Your task to perform on an android device: turn pop-ups on in chrome Image 0: 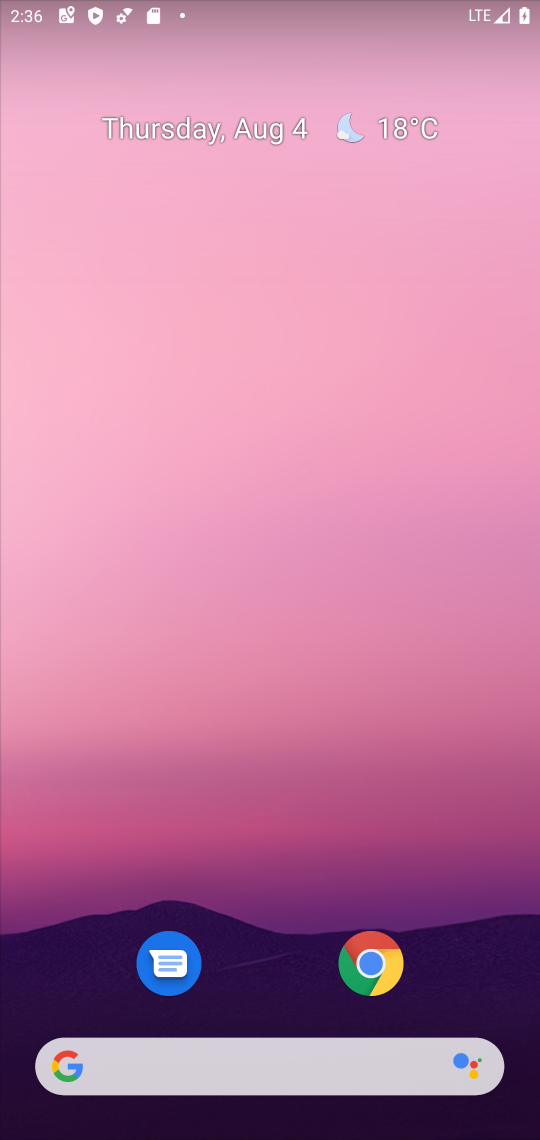
Step 0: click (376, 969)
Your task to perform on an android device: turn pop-ups on in chrome Image 1: 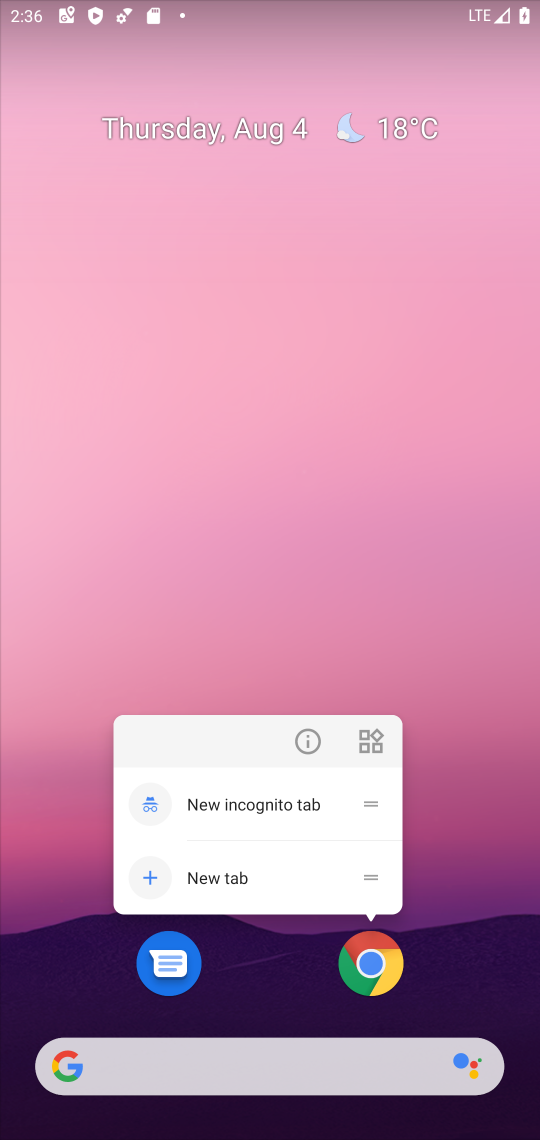
Step 1: click (356, 967)
Your task to perform on an android device: turn pop-ups on in chrome Image 2: 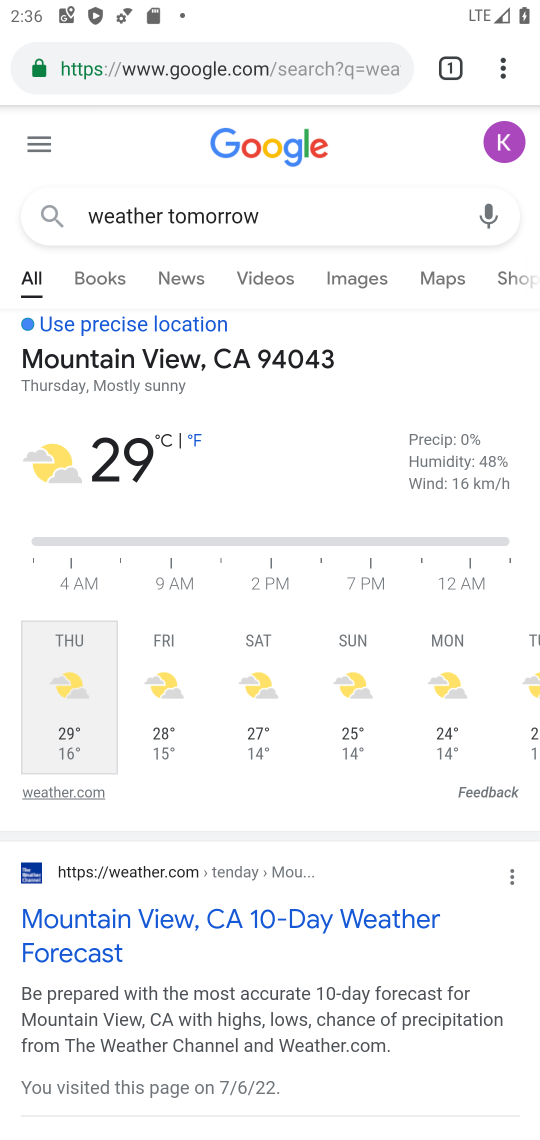
Step 2: drag from (496, 67) to (348, 835)
Your task to perform on an android device: turn pop-ups on in chrome Image 3: 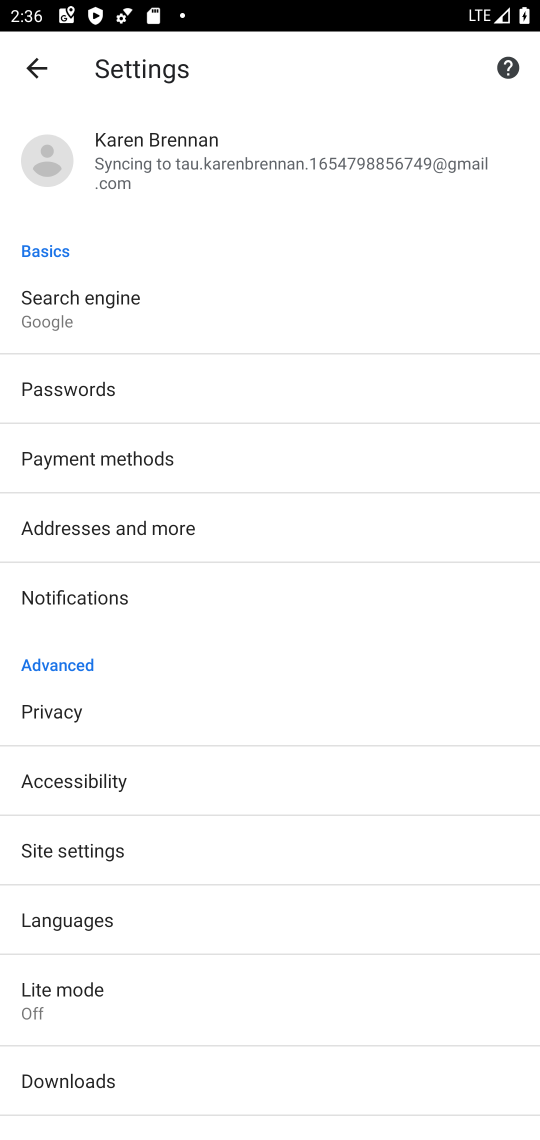
Step 3: click (135, 853)
Your task to perform on an android device: turn pop-ups on in chrome Image 4: 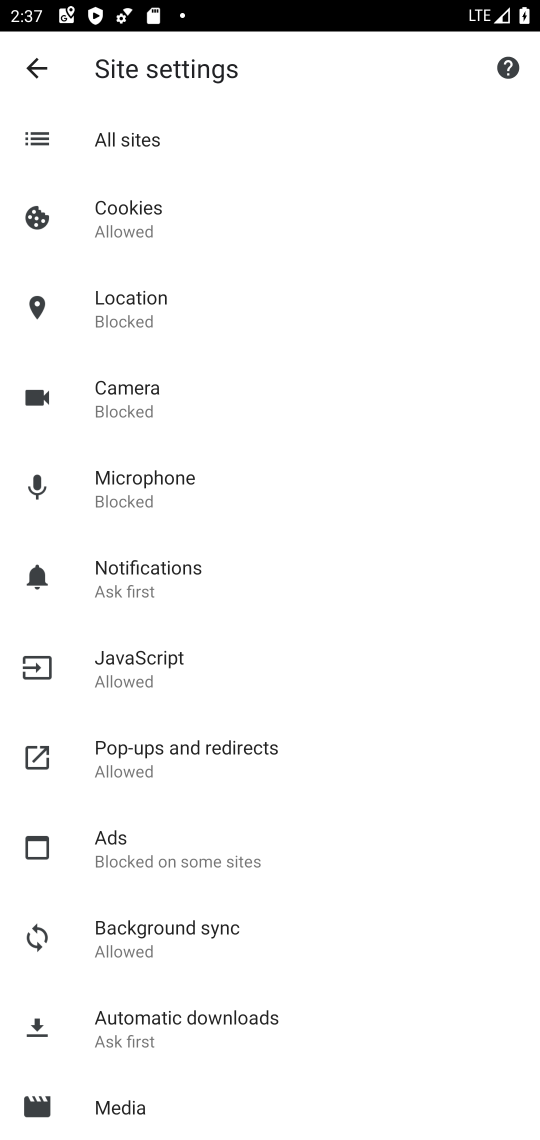
Step 4: click (202, 756)
Your task to perform on an android device: turn pop-ups on in chrome Image 5: 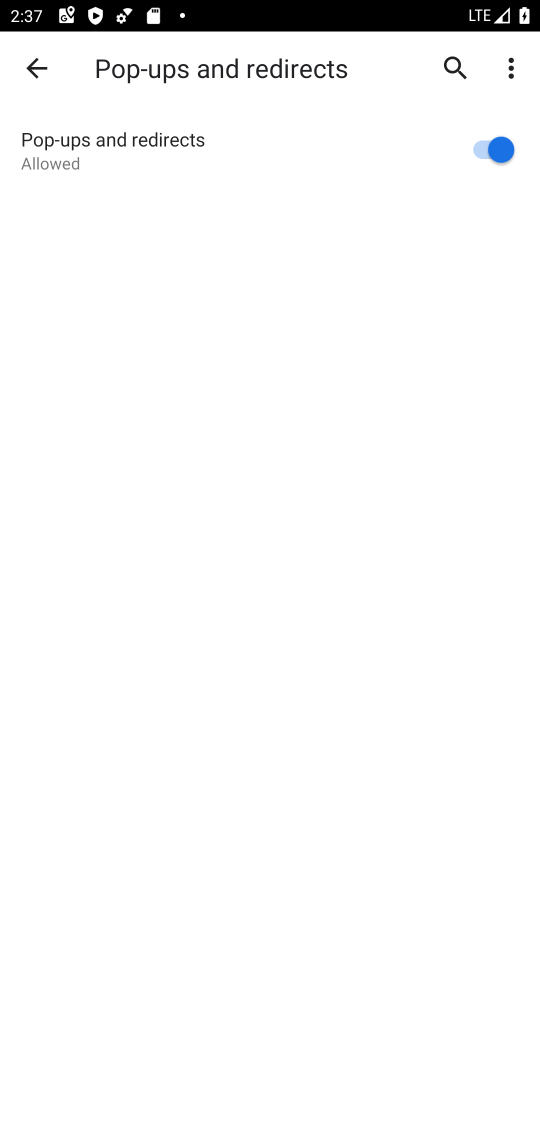
Step 5: task complete